Your task to perform on an android device: Go to battery settings Image 0: 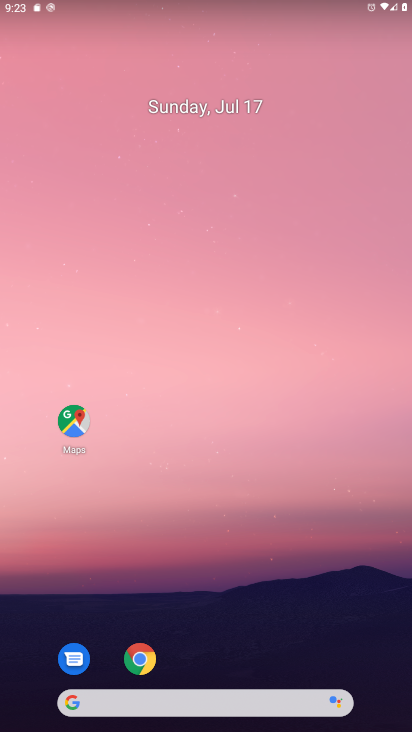
Step 0: drag from (198, 694) to (198, 102)
Your task to perform on an android device: Go to battery settings Image 1: 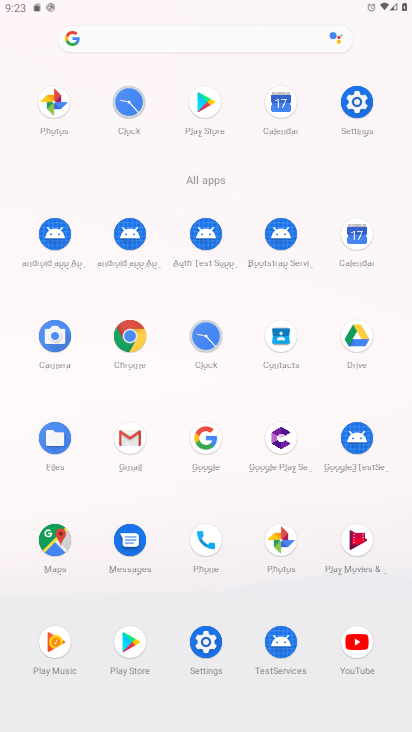
Step 1: click (350, 115)
Your task to perform on an android device: Go to battery settings Image 2: 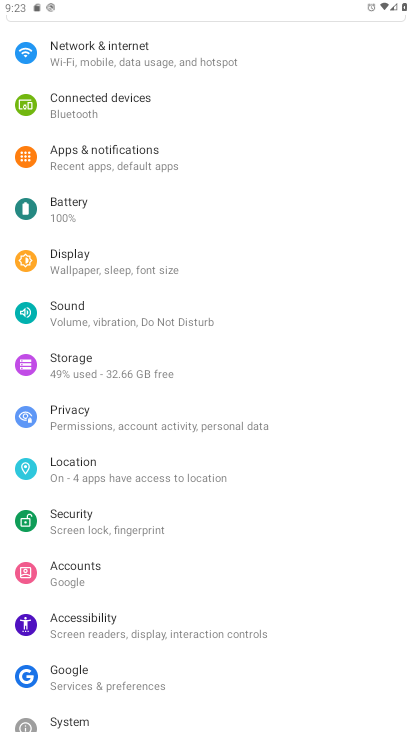
Step 2: click (89, 216)
Your task to perform on an android device: Go to battery settings Image 3: 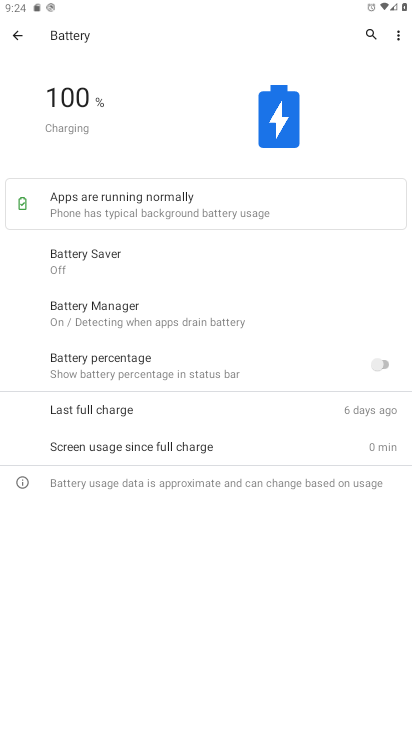
Step 3: task complete